Your task to perform on an android device: open chrome and create a bookmark for the current page Image 0: 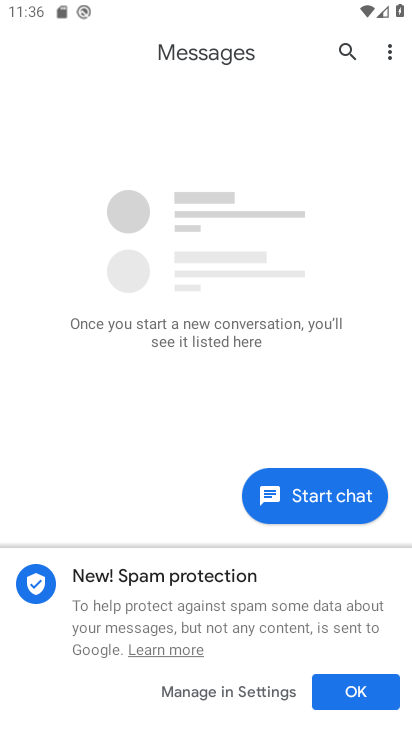
Step 0: press back button
Your task to perform on an android device: open chrome and create a bookmark for the current page Image 1: 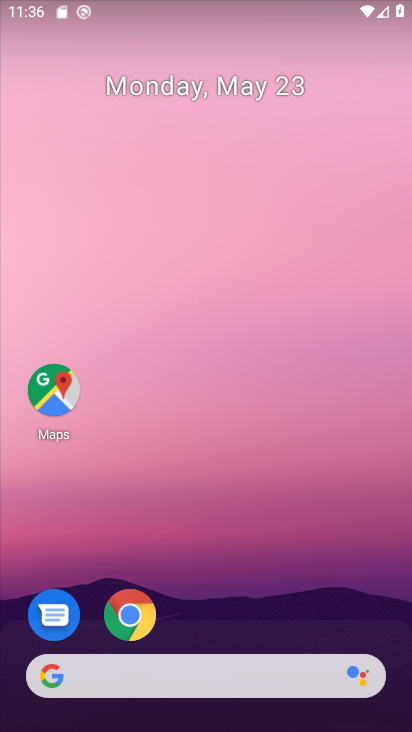
Step 1: click (128, 614)
Your task to perform on an android device: open chrome and create a bookmark for the current page Image 2: 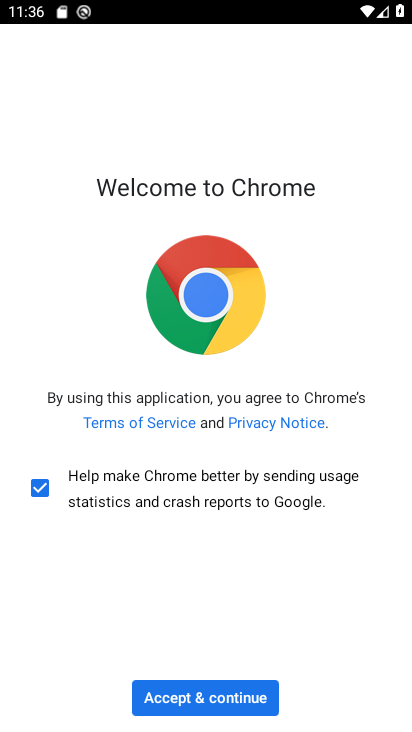
Step 2: click (201, 697)
Your task to perform on an android device: open chrome and create a bookmark for the current page Image 3: 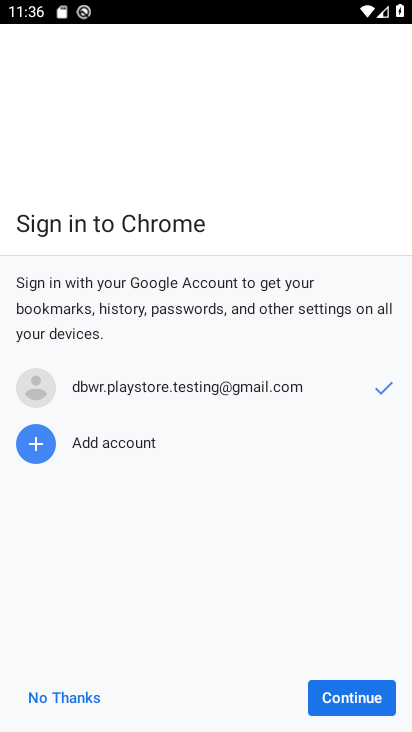
Step 3: click (350, 697)
Your task to perform on an android device: open chrome and create a bookmark for the current page Image 4: 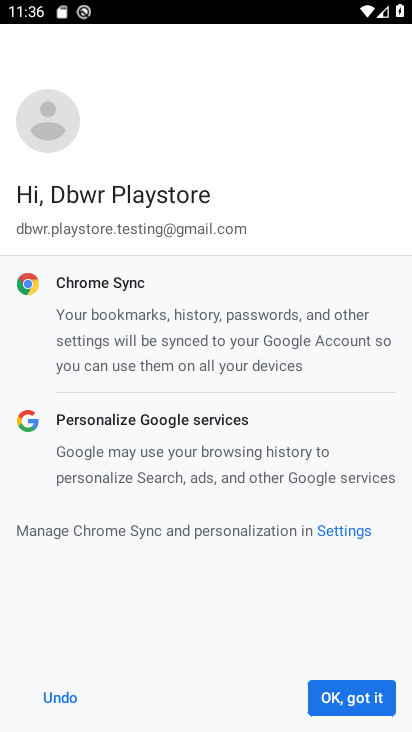
Step 4: click (350, 697)
Your task to perform on an android device: open chrome and create a bookmark for the current page Image 5: 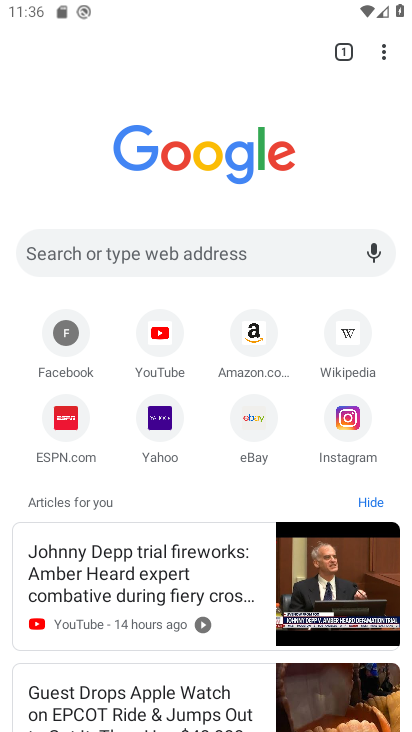
Step 5: click (385, 54)
Your task to perform on an android device: open chrome and create a bookmark for the current page Image 6: 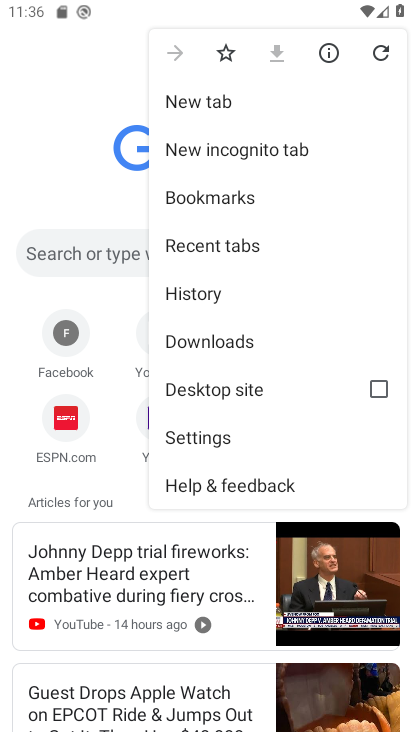
Step 6: click (227, 54)
Your task to perform on an android device: open chrome and create a bookmark for the current page Image 7: 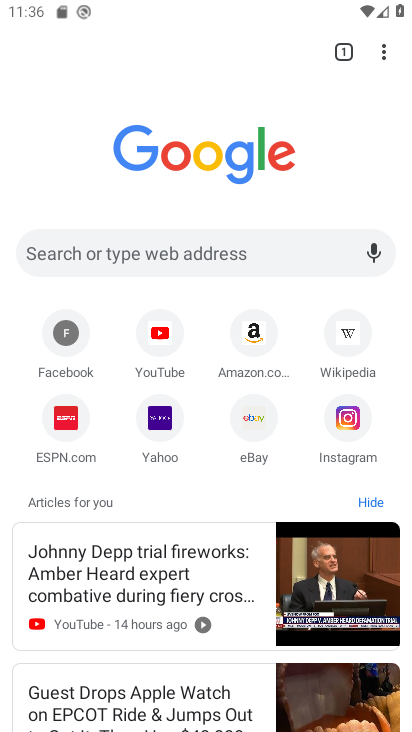
Step 7: task complete